Your task to perform on an android device: What's the weather going to be this weekend? Image 0: 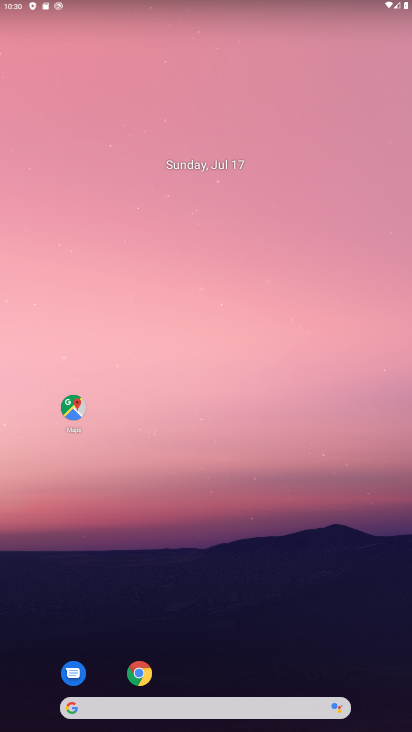
Step 0: drag from (177, 681) to (254, 181)
Your task to perform on an android device: What's the weather going to be this weekend? Image 1: 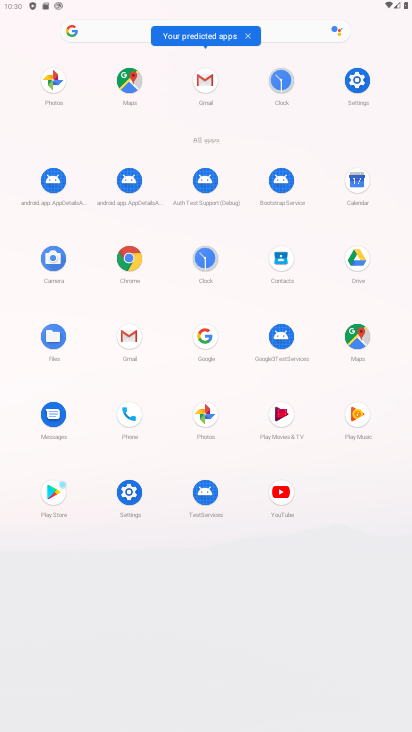
Step 1: click (147, 279)
Your task to perform on an android device: What's the weather going to be this weekend? Image 2: 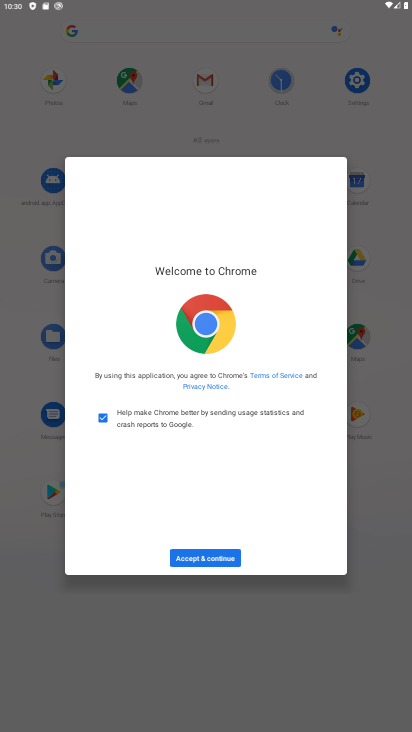
Step 2: click (194, 568)
Your task to perform on an android device: What's the weather going to be this weekend? Image 3: 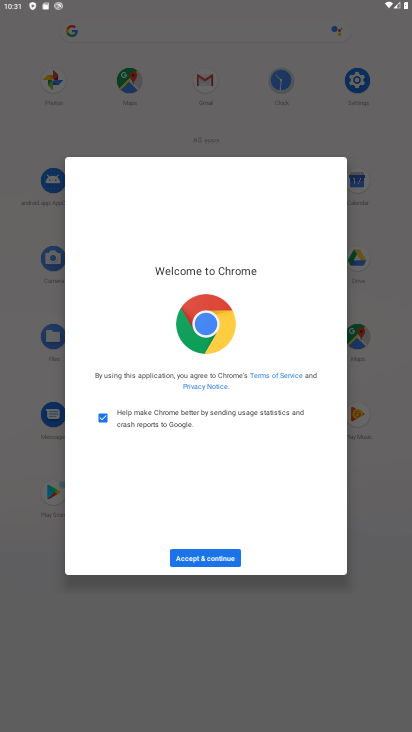
Step 3: click (201, 560)
Your task to perform on an android device: What's the weather going to be this weekend? Image 4: 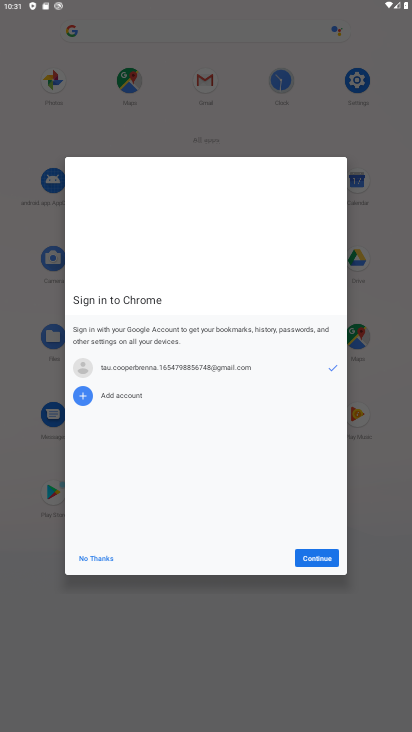
Step 4: click (323, 551)
Your task to perform on an android device: What's the weather going to be this weekend? Image 5: 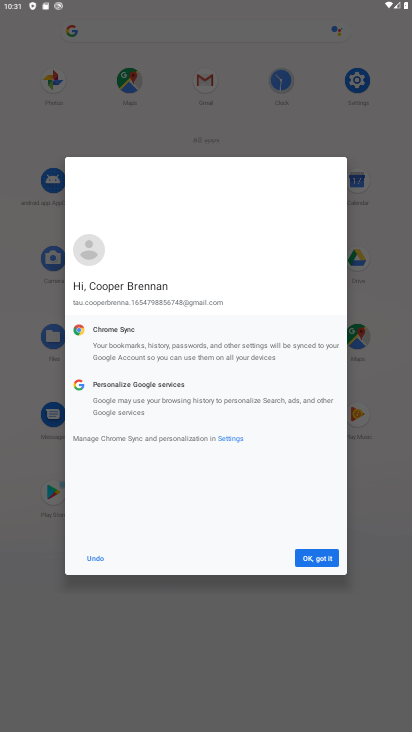
Step 5: click (322, 553)
Your task to perform on an android device: What's the weather going to be this weekend? Image 6: 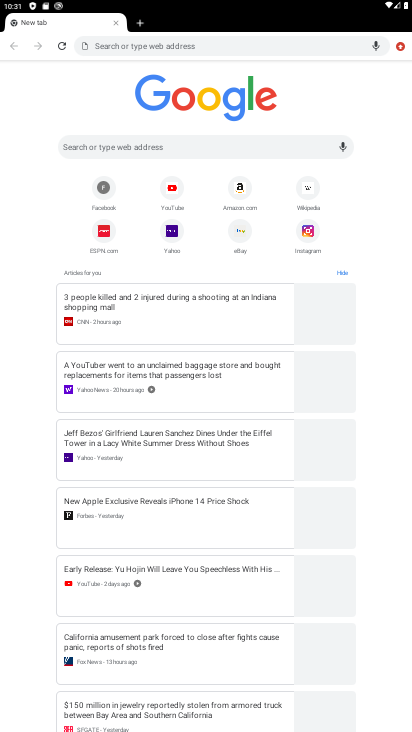
Step 6: click (190, 141)
Your task to perform on an android device: What's the weather going to be this weekend? Image 7: 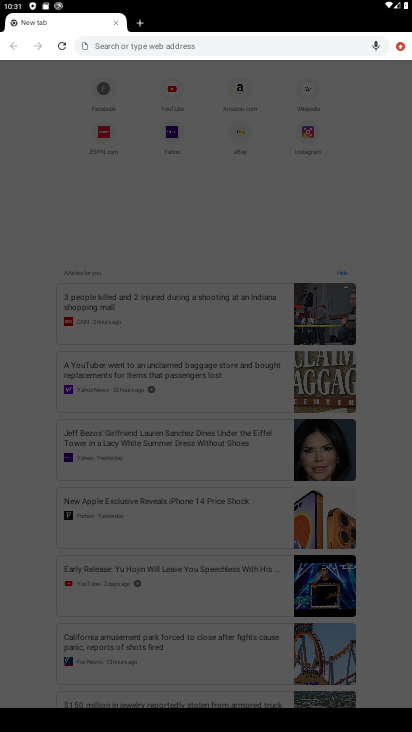
Step 7: type "What's the weather going to be this weekend?"
Your task to perform on an android device: What's the weather going to be this weekend? Image 8: 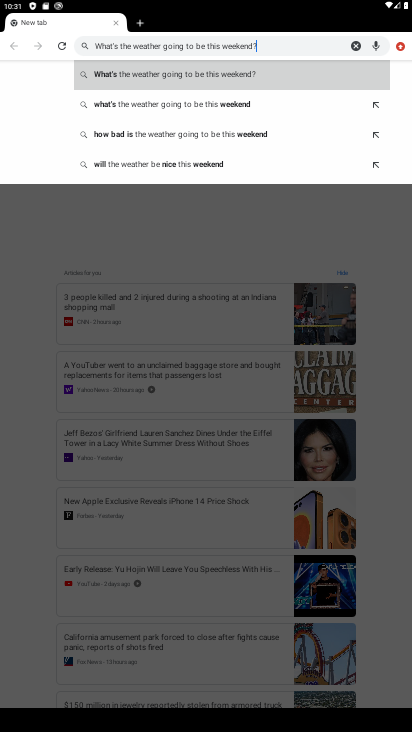
Step 8: type ""
Your task to perform on an android device: What's the weather going to be this weekend? Image 9: 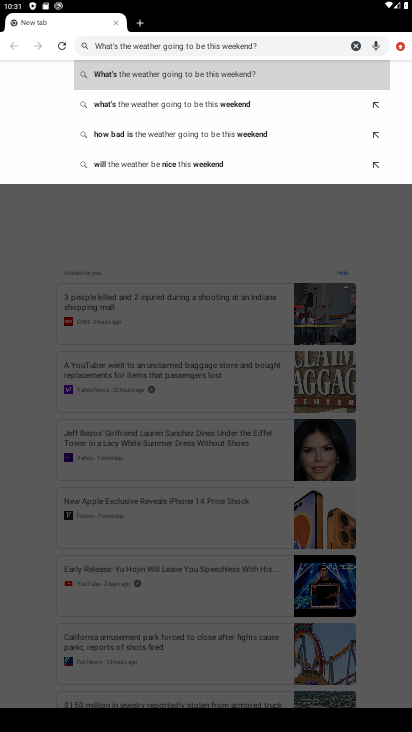
Step 9: press enter
Your task to perform on an android device: What's the weather going to be this weekend? Image 10: 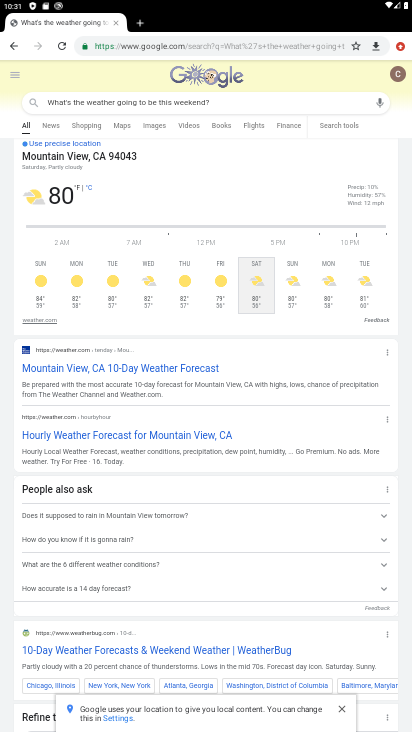
Step 10: task complete